Your task to perform on an android device: change your default location settings in chrome Image 0: 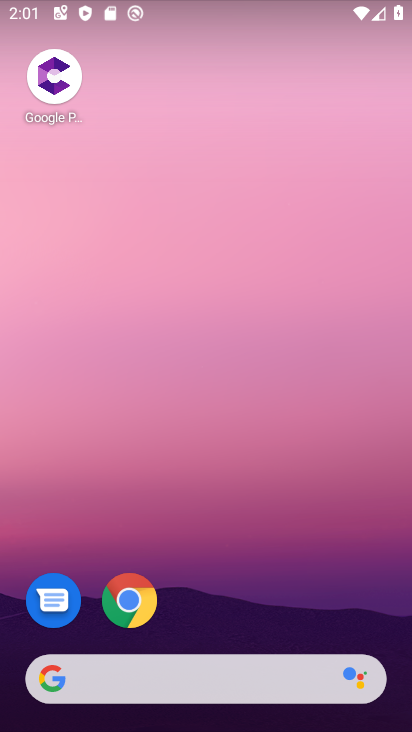
Step 0: click (121, 597)
Your task to perform on an android device: change your default location settings in chrome Image 1: 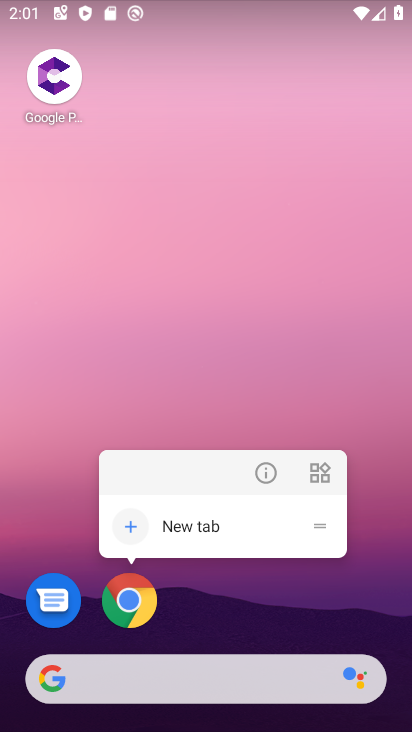
Step 1: click (132, 606)
Your task to perform on an android device: change your default location settings in chrome Image 2: 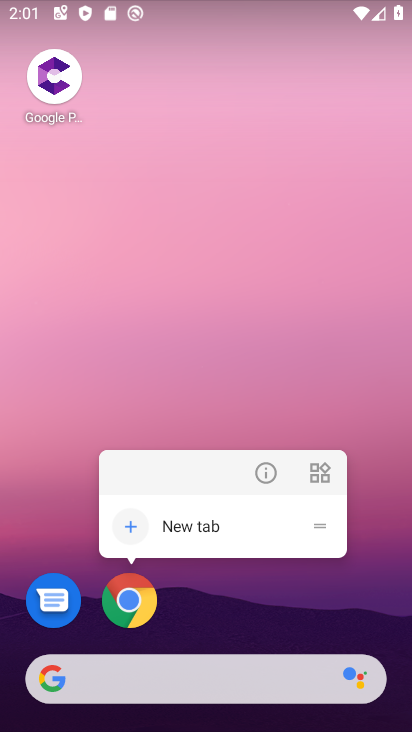
Step 2: click (132, 602)
Your task to perform on an android device: change your default location settings in chrome Image 3: 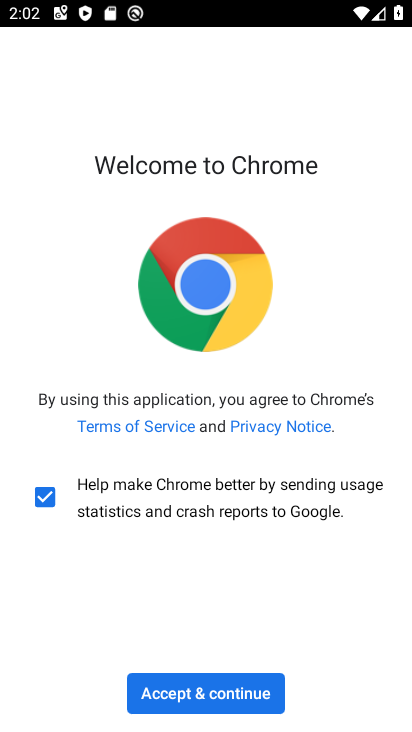
Step 3: click (188, 692)
Your task to perform on an android device: change your default location settings in chrome Image 4: 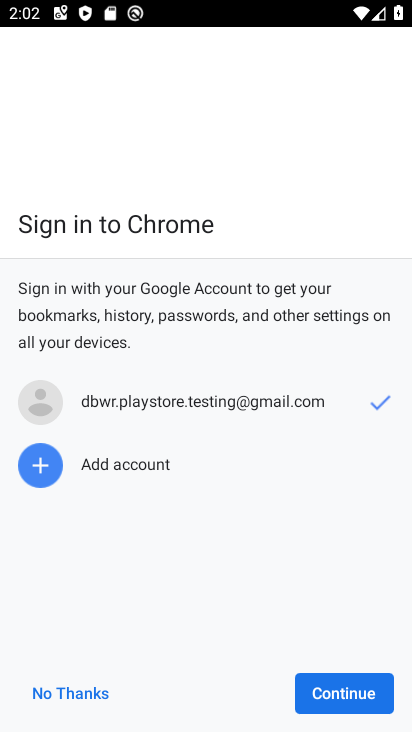
Step 4: click (357, 693)
Your task to perform on an android device: change your default location settings in chrome Image 5: 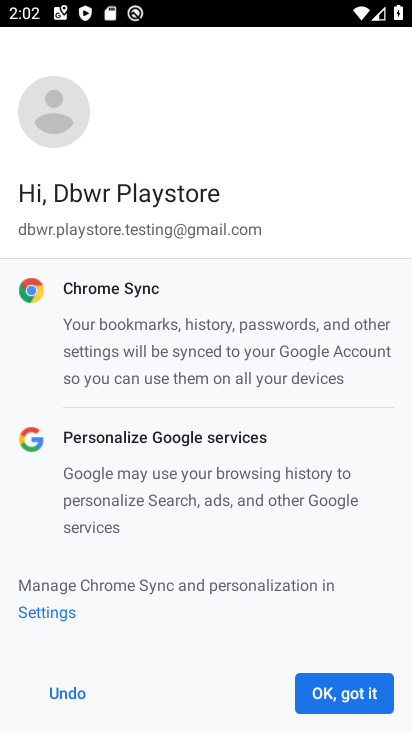
Step 5: click (357, 693)
Your task to perform on an android device: change your default location settings in chrome Image 6: 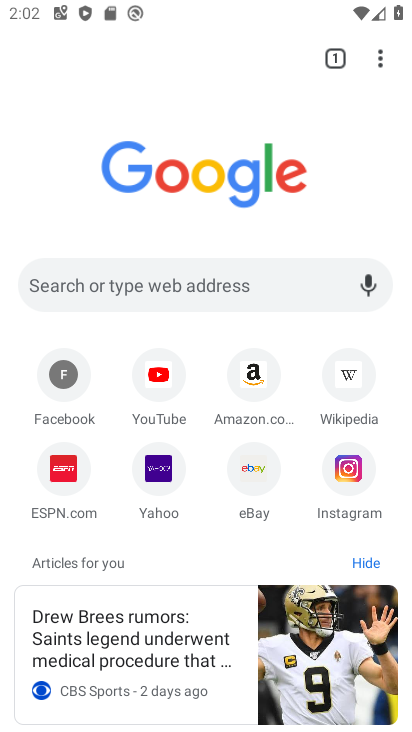
Step 6: click (385, 52)
Your task to perform on an android device: change your default location settings in chrome Image 7: 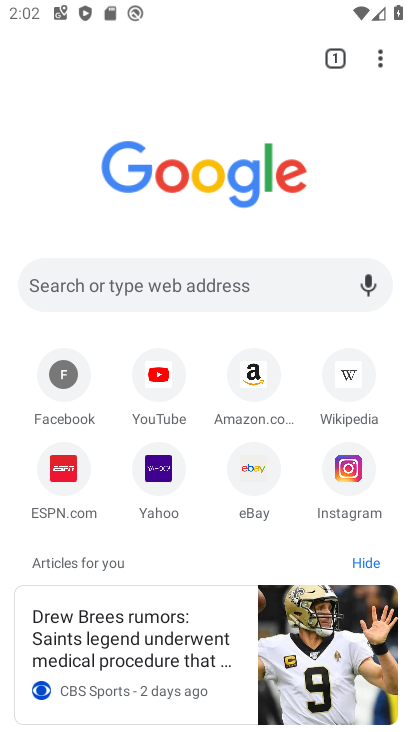
Step 7: click (381, 61)
Your task to perform on an android device: change your default location settings in chrome Image 8: 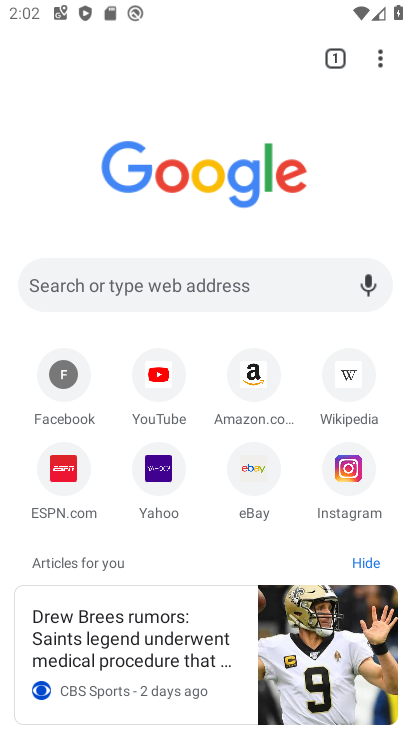
Step 8: click (384, 60)
Your task to perform on an android device: change your default location settings in chrome Image 9: 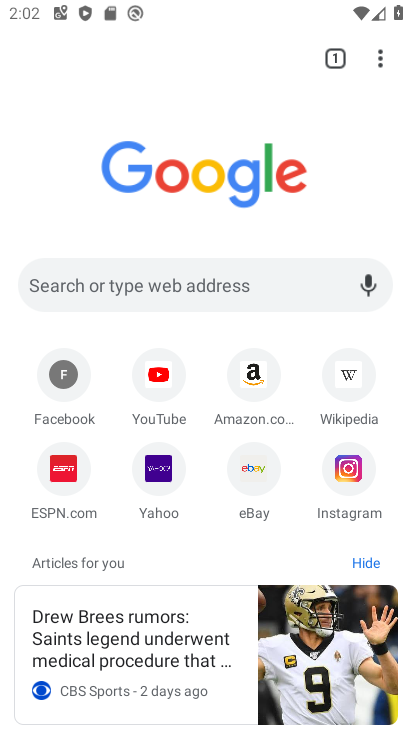
Step 9: click (376, 56)
Your task to perform on an android device: change your default location settings in chrome Image 10: 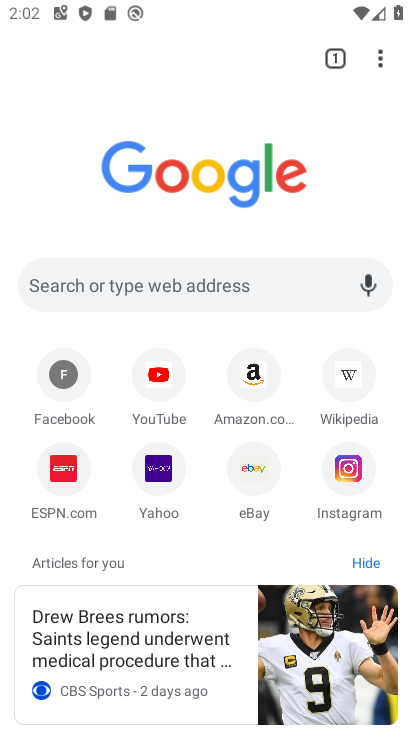
Step 10: click (376, 56)
Your task to perform on an android device: change your default location settings in chrome Image 11: 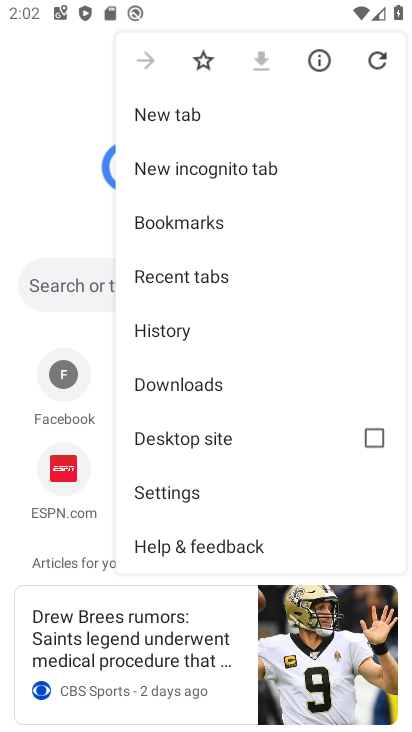
Step 11: click (191, 494)
Your task to perform on an android device: change your default location settings in chrome Image 12: 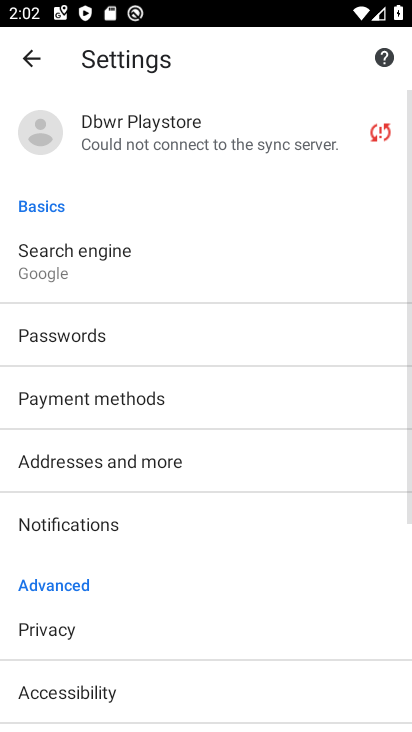
Step 12: drag from (111, 701) to (111, 278)
Your task to perform on an android device: change your default location settings in chrome Image 13: 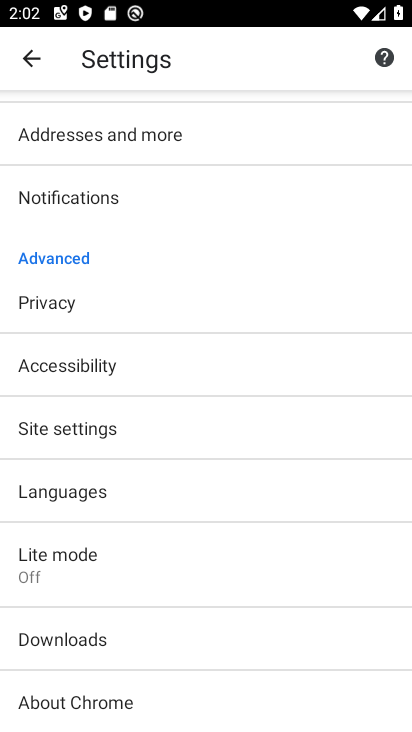
Step 13: click (63, 403)
Your task to perform on an android device: change your default location settings in chrome Image 14: 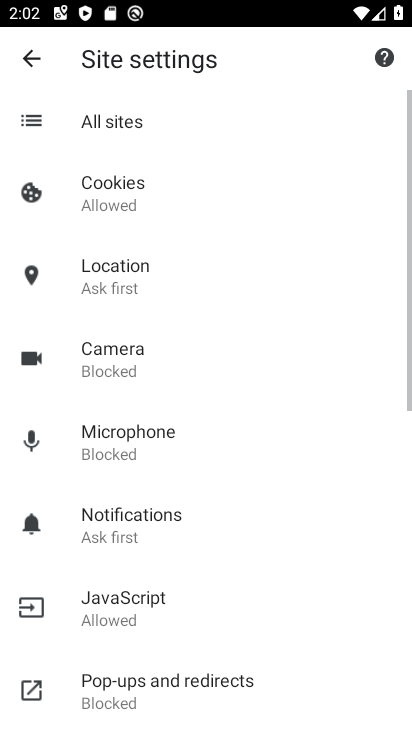
Step 14: click (89, 284)
Your task to perform on an android device: change your default location settings in chrome Image 15: 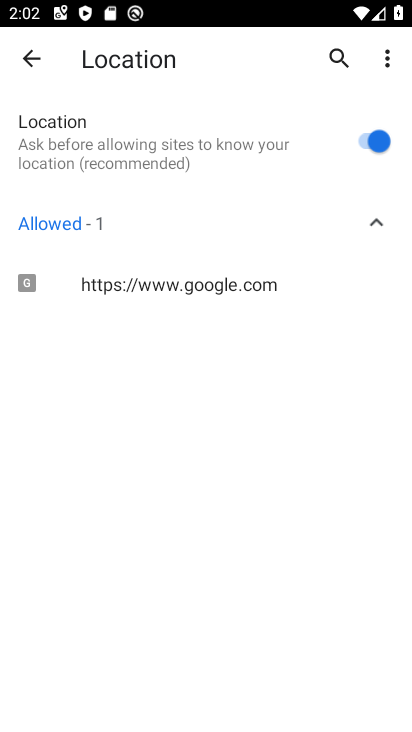
Step 15: click (369, 138)
Your task to perform on an android device: change your default location settings in chrome Image 16: 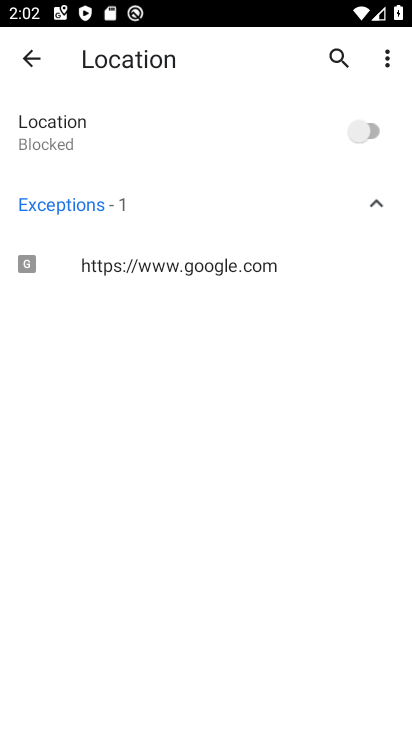
Step 16: task complete